Your task to perform on an android device: Open the web browser Image 0: 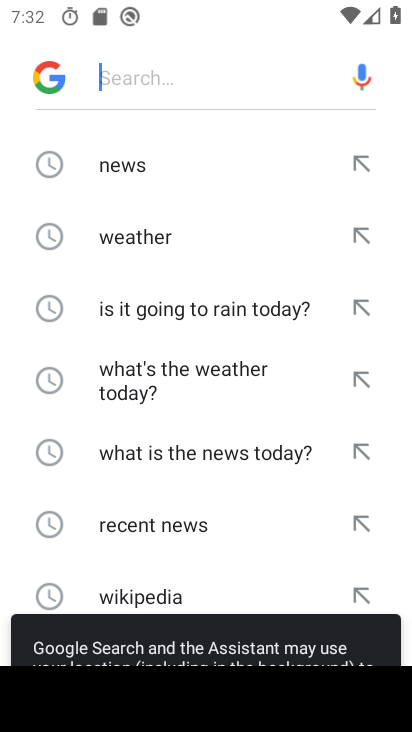
Step 0: press home button
Your task to perform on an android device: Open the web browser Image 1: 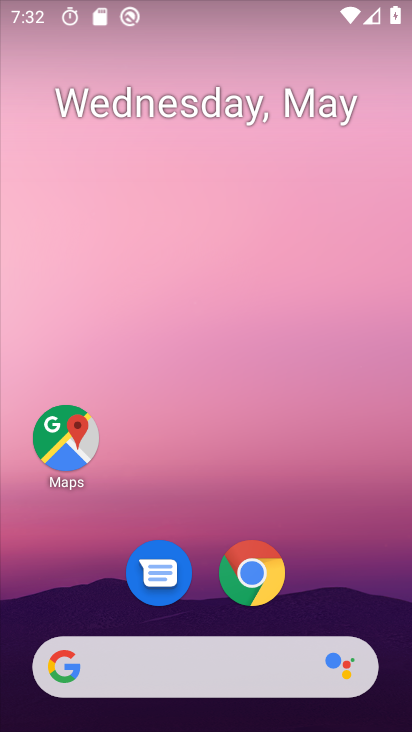
Step 1: click (239, 571)
Your task to perform on an android device: Open the web browser Image 2: 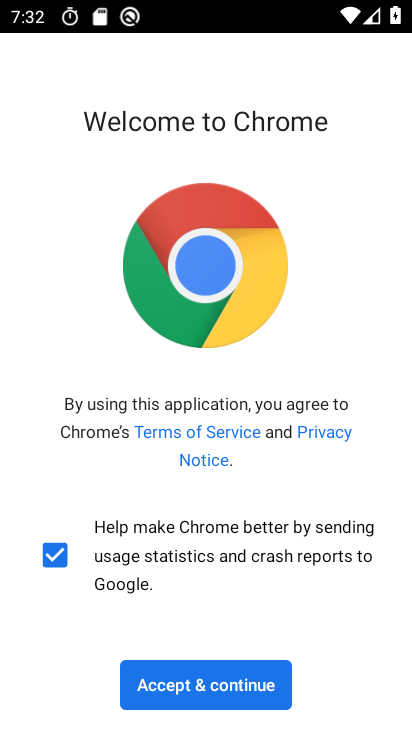
Step 2: click (263, 696)
Your task to perform on an android device: Open the web browser Image 3: 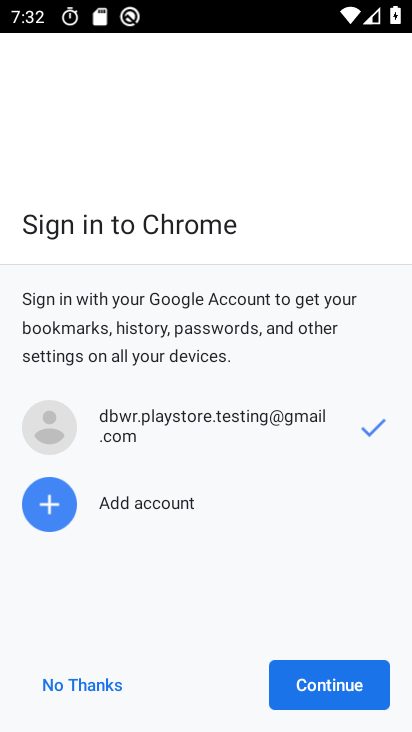
Step 3: click (356, 688)
Your task to perform on an android device: Open the web browser Image 4: 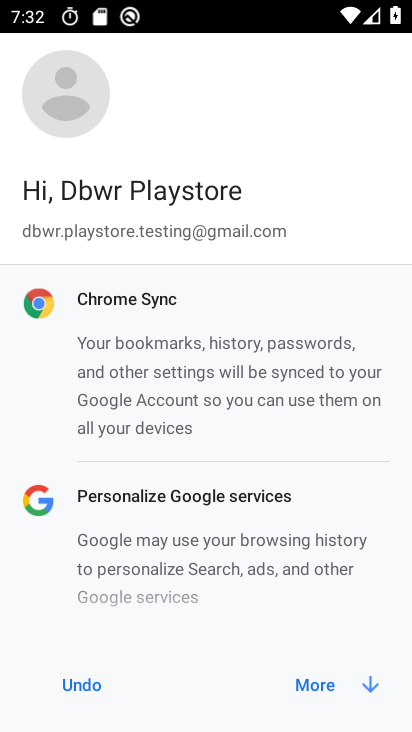
Step 4: click (357, 684)
Your task to perform on an android device: Open the web browser Image 5: 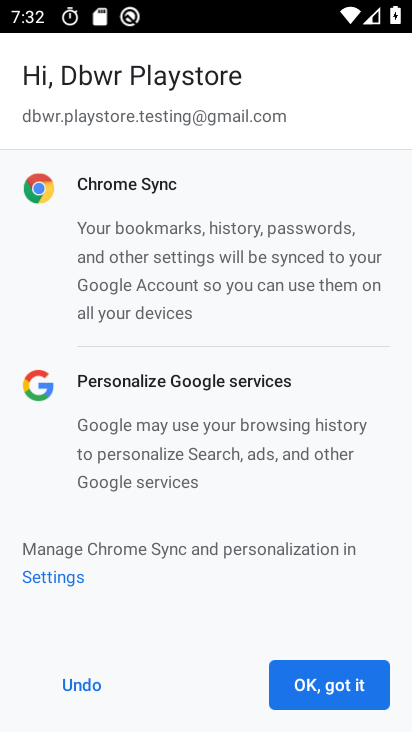
Step 5: click (357, 684)
Your task to perform on an android device: Open the web browser Image 6: 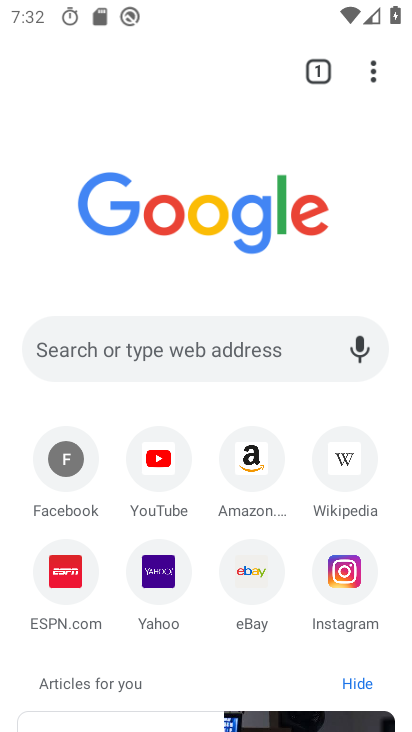
Step 6: task complete